Your task to perform on an android device: Open calendar and show me the first week of next month Image 0: 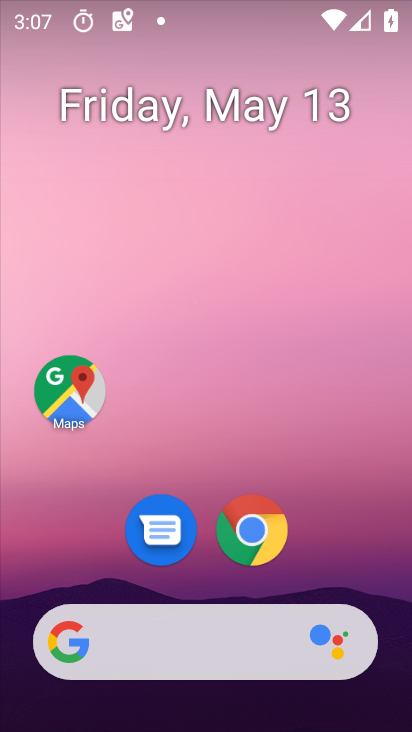
Step 0: drag from (346, 526) to (334, 112)
Your task to perform on an android device: Open calendar and show me the first week of next month Image 1: 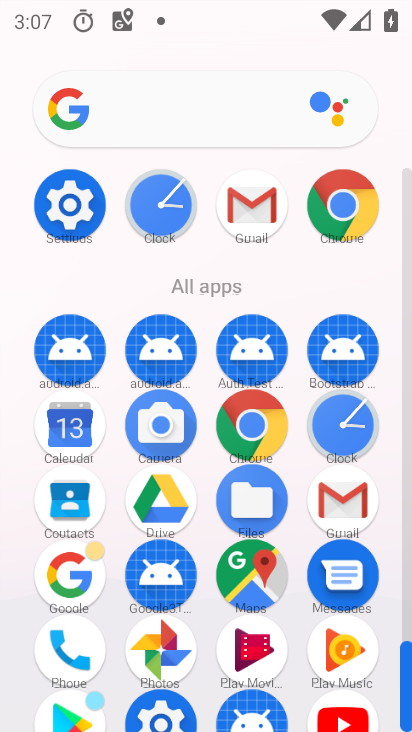
Step 1: drag from (276, 637) to (270, 362)
Your task to perform on an android device: Open calendar and show me the first week of next month Image 2: 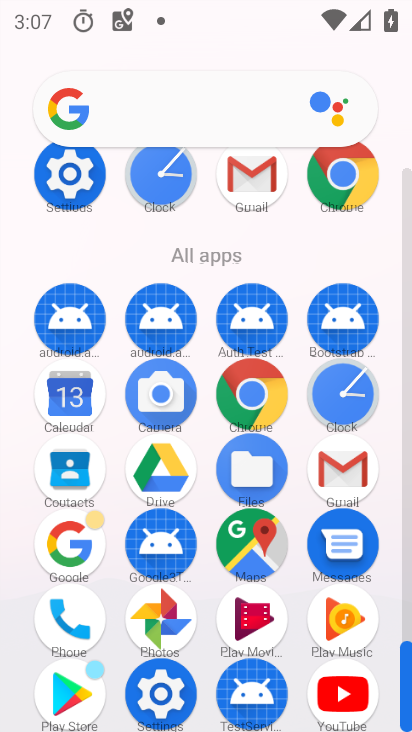
Step 2: click (70, 403)
Your task to perform on an android device: Open calendar and show me the first week of next month Image 3: 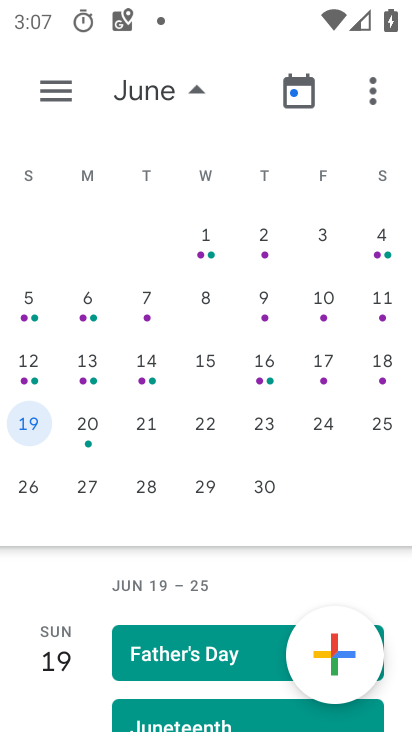
Step 3: click (342, 390)
Your task to perform on an android device: Open calendar and show me the first week of next month Image 4: 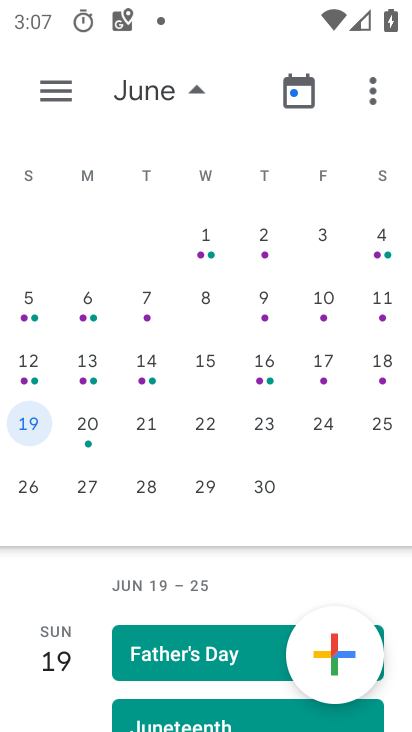
Step 4: click (264, 241)
Your task to perform on an android device: Open calendar and show me the first week of next month Image 5: 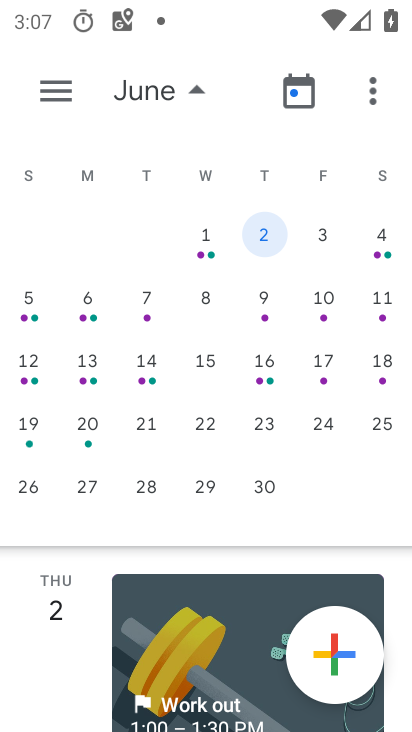
Step 5: task complete